Your task to perform on an android device: change the clock display to show seconds Image 0: 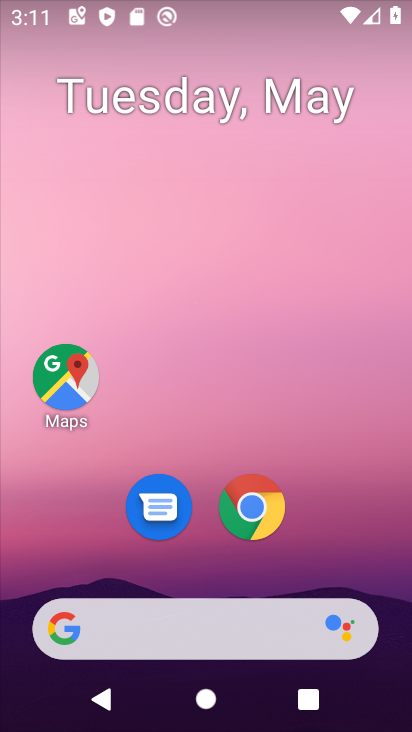
Step 0: drag from (207, 566) to (244, 71)
Your task to perform on an android device: change the clock display to show seconds Image 1: 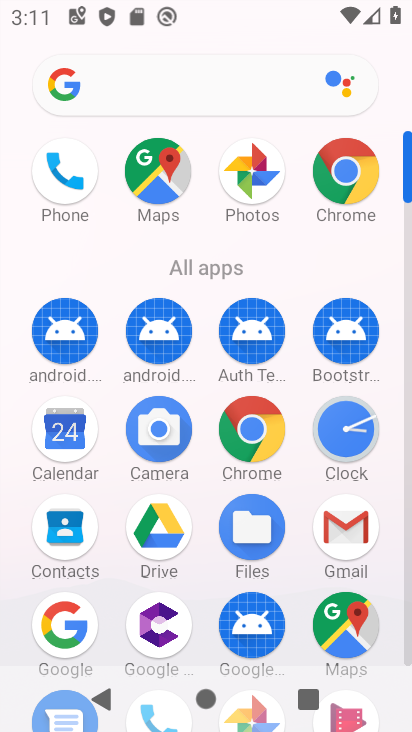
Step 1: drag from (198, 563) to (201, 145)
Your task to perform on an android device: change the clock display to show seconds Image 2: 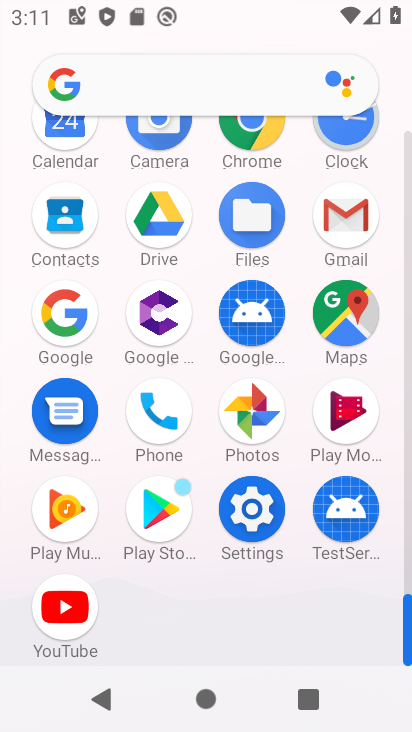
Step 2: click (347, 140)
Your task to perform on an android device: change the clock display to show seconds Image 3: 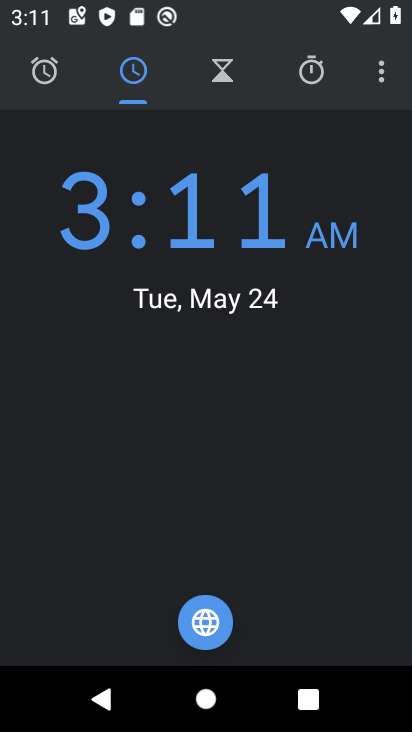
Step 3: click (373, 69)
Your task to perform on an android device: change the clock display to show seconds Image 4: 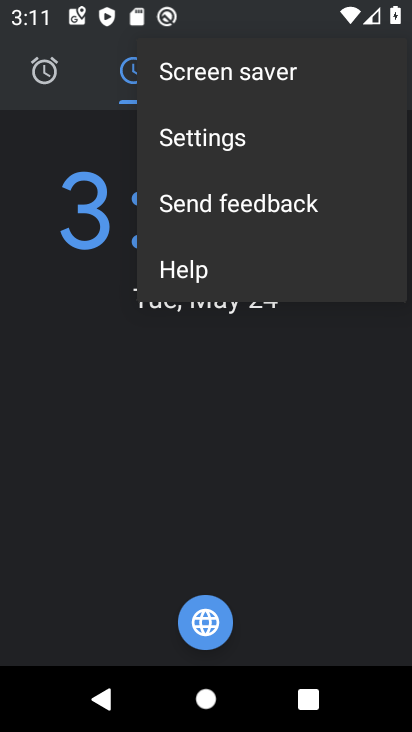
Step 4: click (291, 134)
Your task to perform on an android device: change the clock display to show seconds Image 5: 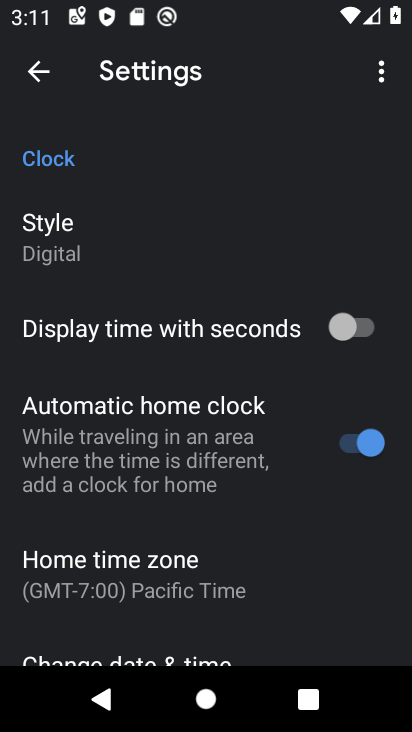
Step 5: click (332, 312)
Your task to perform on an android device: change the clock display to show seconds Image 6: 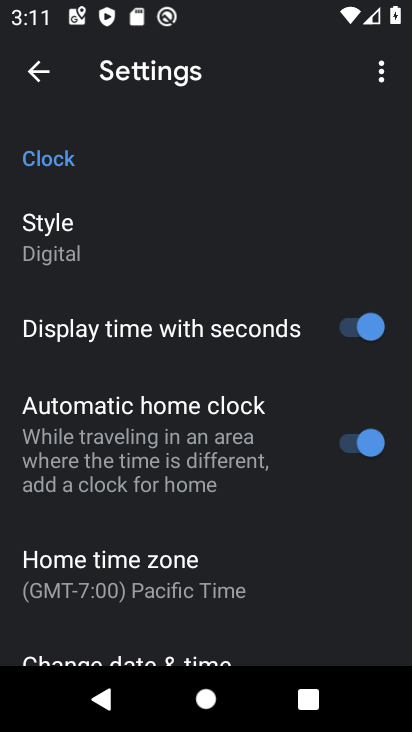
Step 6: task complete